Your task to perform on an android device: Go to ESPN.com Image 0: 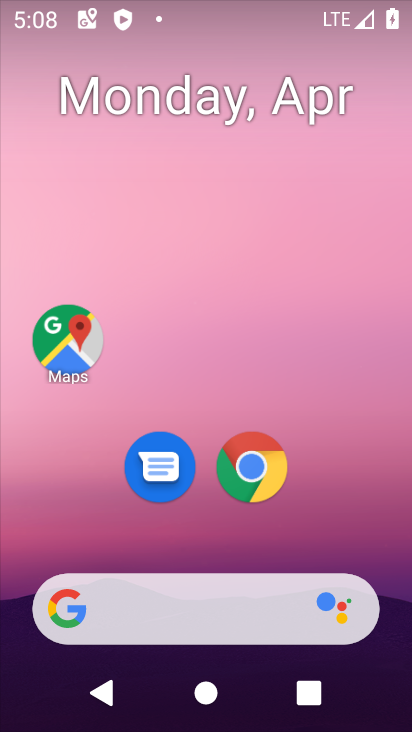
Step 0: drag from (195, 571) to (221, 25)
Your task to perform on an android device: Go to ESPN.com Image 1: 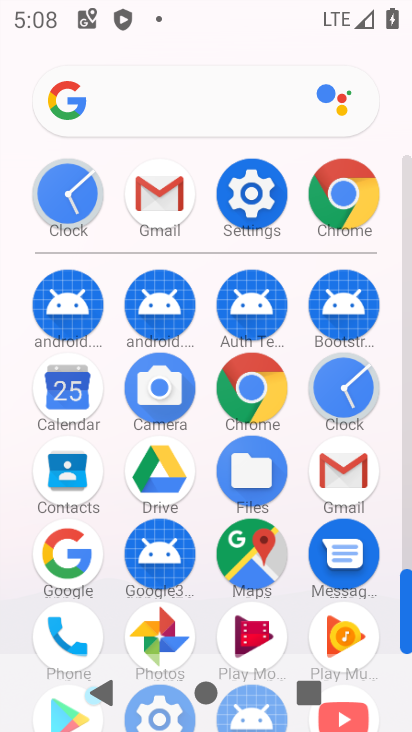
Step 1: click (251, 388)
Your task to perform on an android device: Go to ESPN.com Image 2: 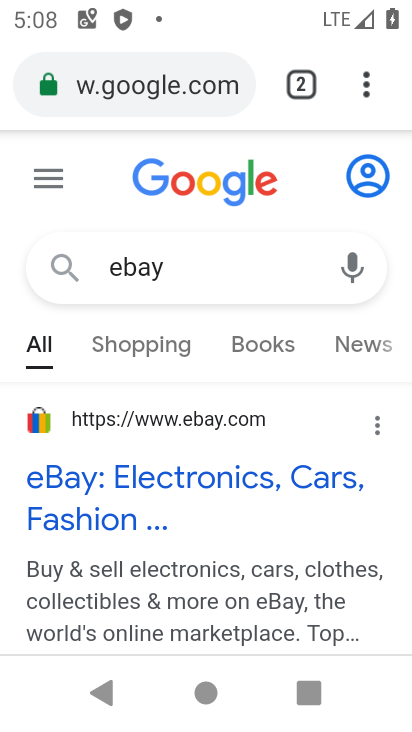
Step 2: click (231, 83)
Your task to perform on an android device: Go to ESPN.com Image 3: 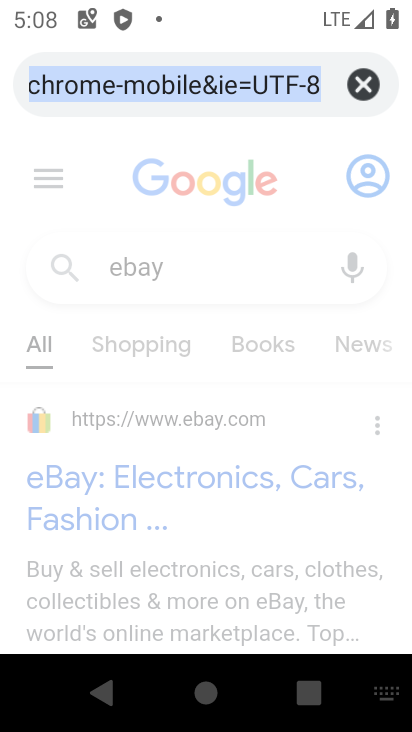
Step 3: click (357, 85)
Your task to perform on an android device: Go to ESPN.com Image 4: 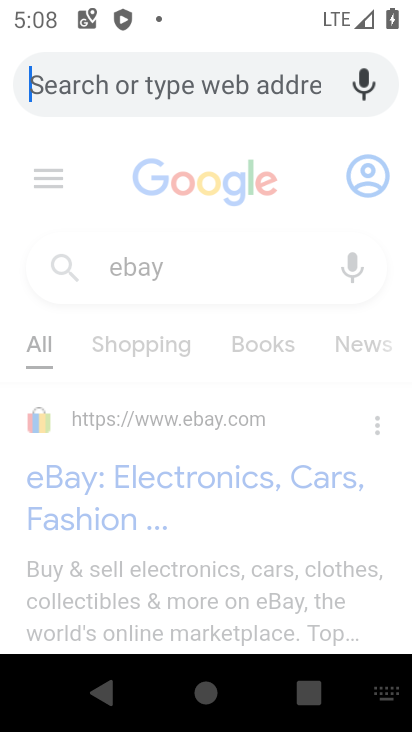
Step 4: type "espn"
Your task to perform on an android device: Go to ESPN.com Image 5: 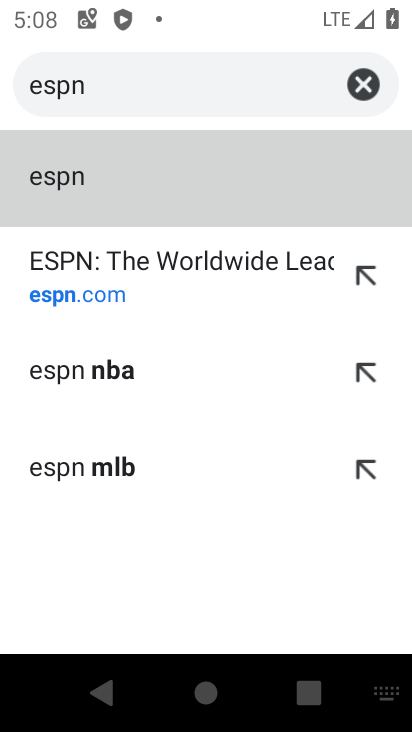
Step 5: click (262, 277)
Your task to perform on an android device: Go to ESPN.com Image 6: 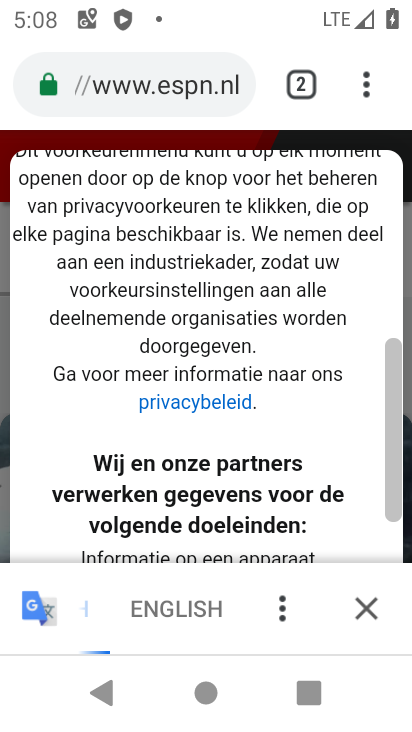
Step 6: task complete